Your task to perform on an android device: turn on translation in the chrome app Image 0: 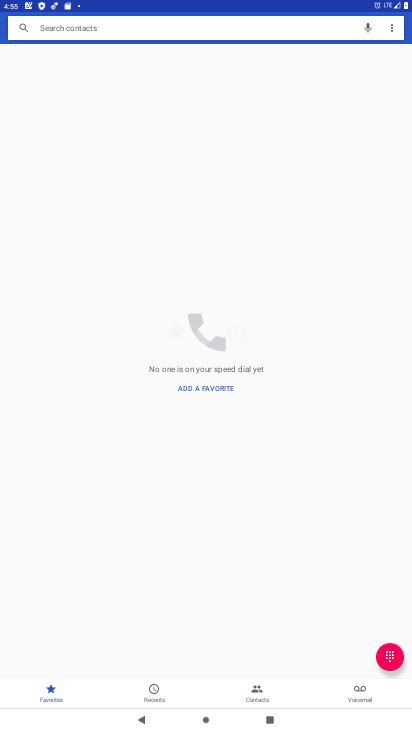
Step 0: press home button
Your task to perform on an android device: turn on translation in the chrome app Image 1: 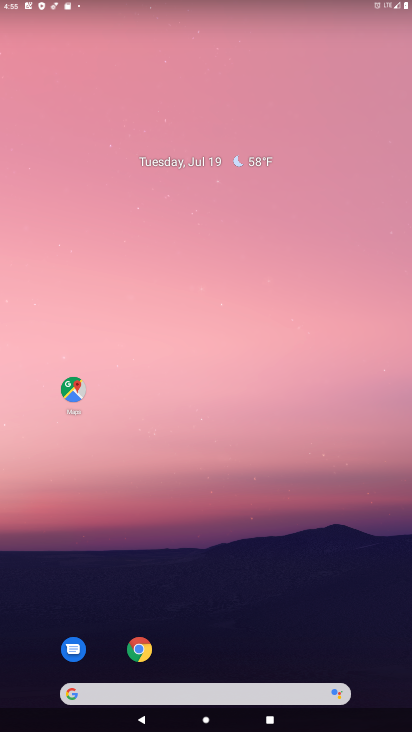
Step 1: click (146, 651)
Your task to perform on an android device: turn on translation in the chrome app Image 2: 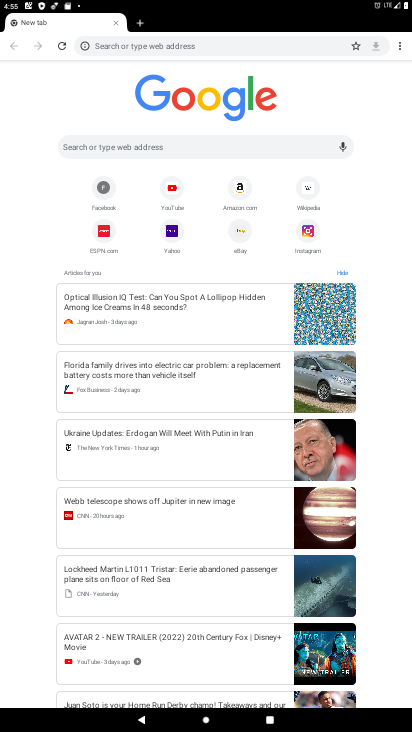
Step 2: click (400, 38)
Your task to perform on an android device: turn on translation in the chrome app Image 3: 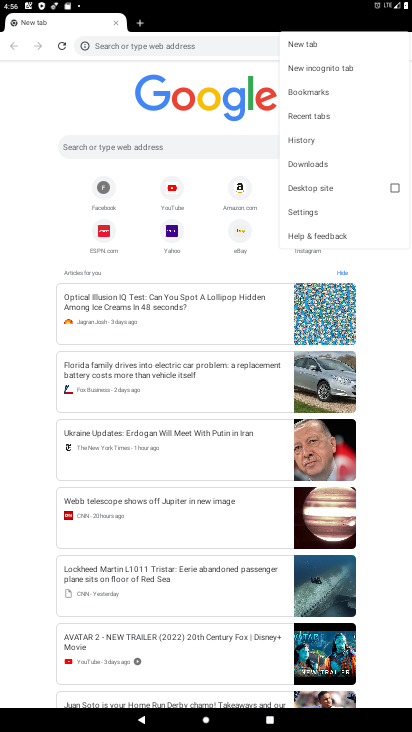
Step 3: click (297, 213)
Your task to perform on an android device: turn on translation in the chrome app Image 4: 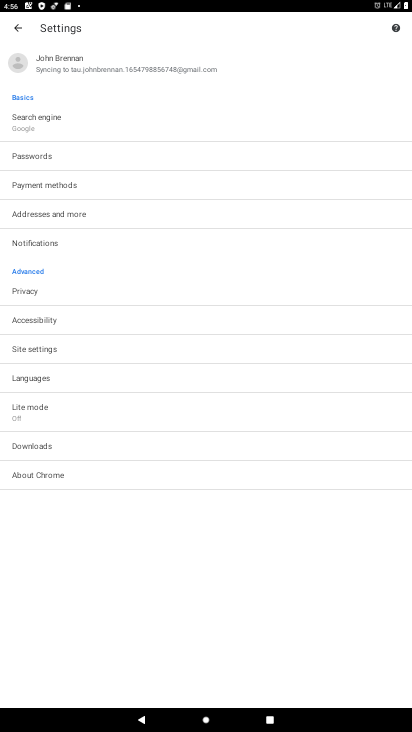
Step 4: click (47, 380)
Your task to perform on an android device: turn on translation in the chrome app Image 5: 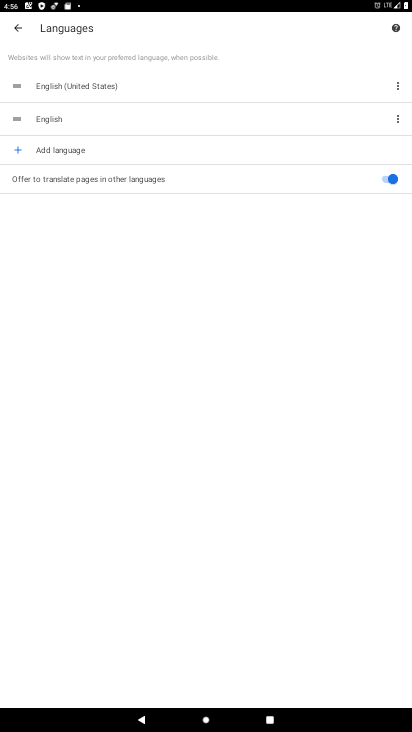
Step 5: click (378, 176)
Your task to perform on an android device: turn on translation in the chrome app Image 6: 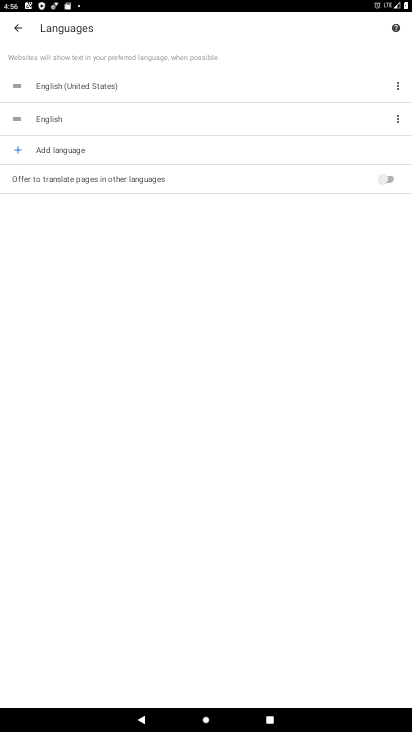
Step 6: task complete